Your task to perform on an android device: open wifi settings Image 0: 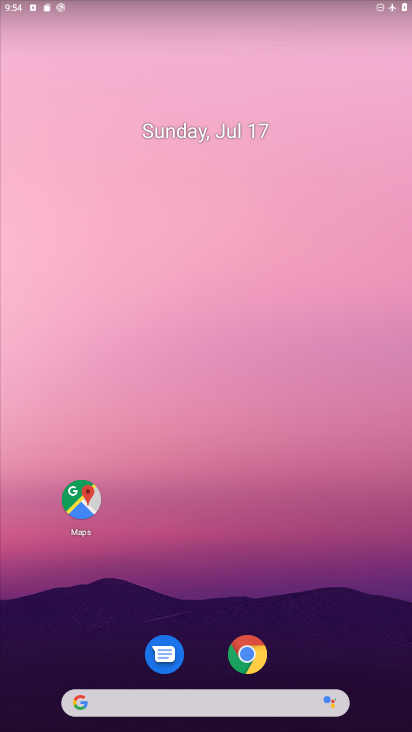
Step 0: drag from (199, 566) to (206, 113)
Your task to perform on an android device: open wifi settings Image 1: 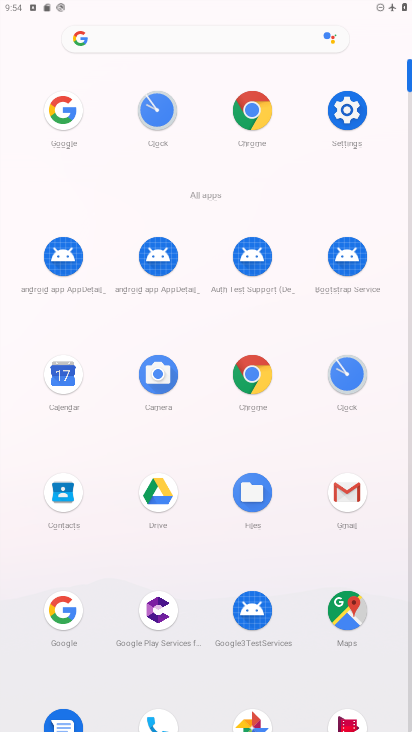
Step 1: click (330, 110)
Your task to perform on an android device: open wifi settings Image 2: 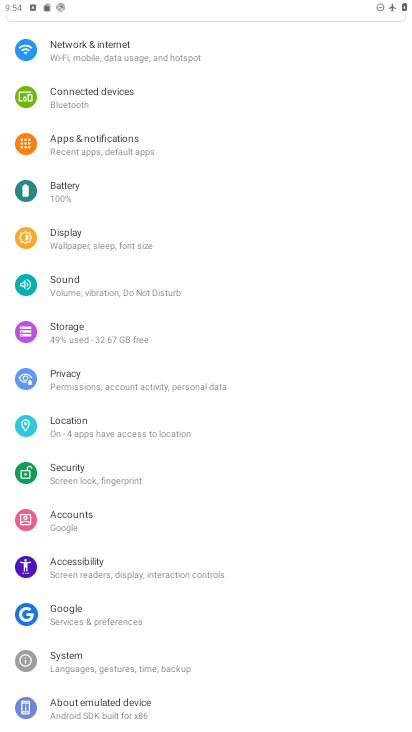
Step 2: click (162, 54)
Your task to perform on an android device: open wifi settings Image 3: 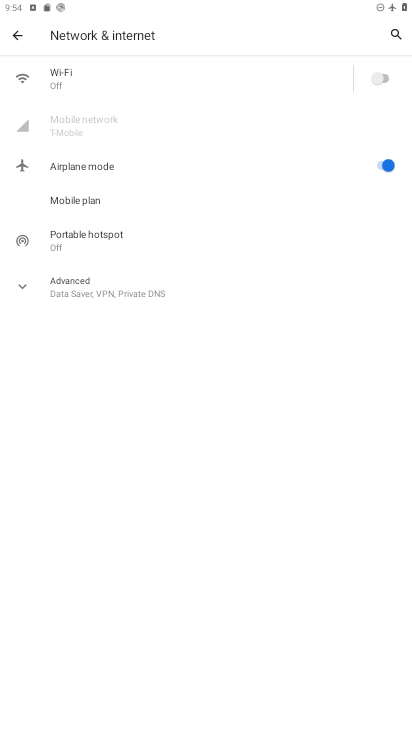
Step 3: click (85, 82)
Your task to perform on an android device: open wifi settings Image 4: 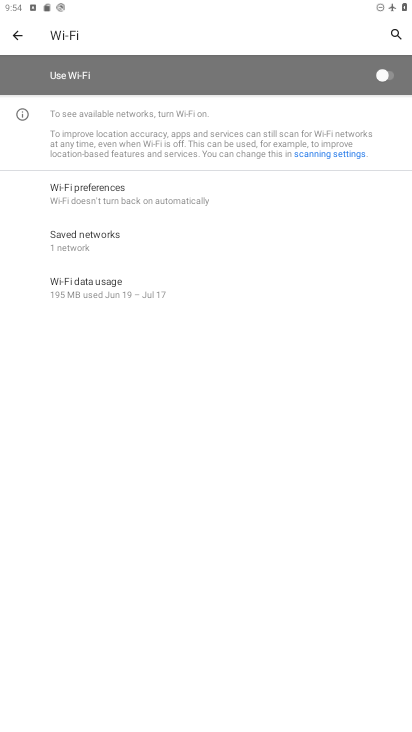
Step 4: task complete